Your task to perform on an android device: Add "sony triple a" to the cart on target, then select checkout. Image 0: 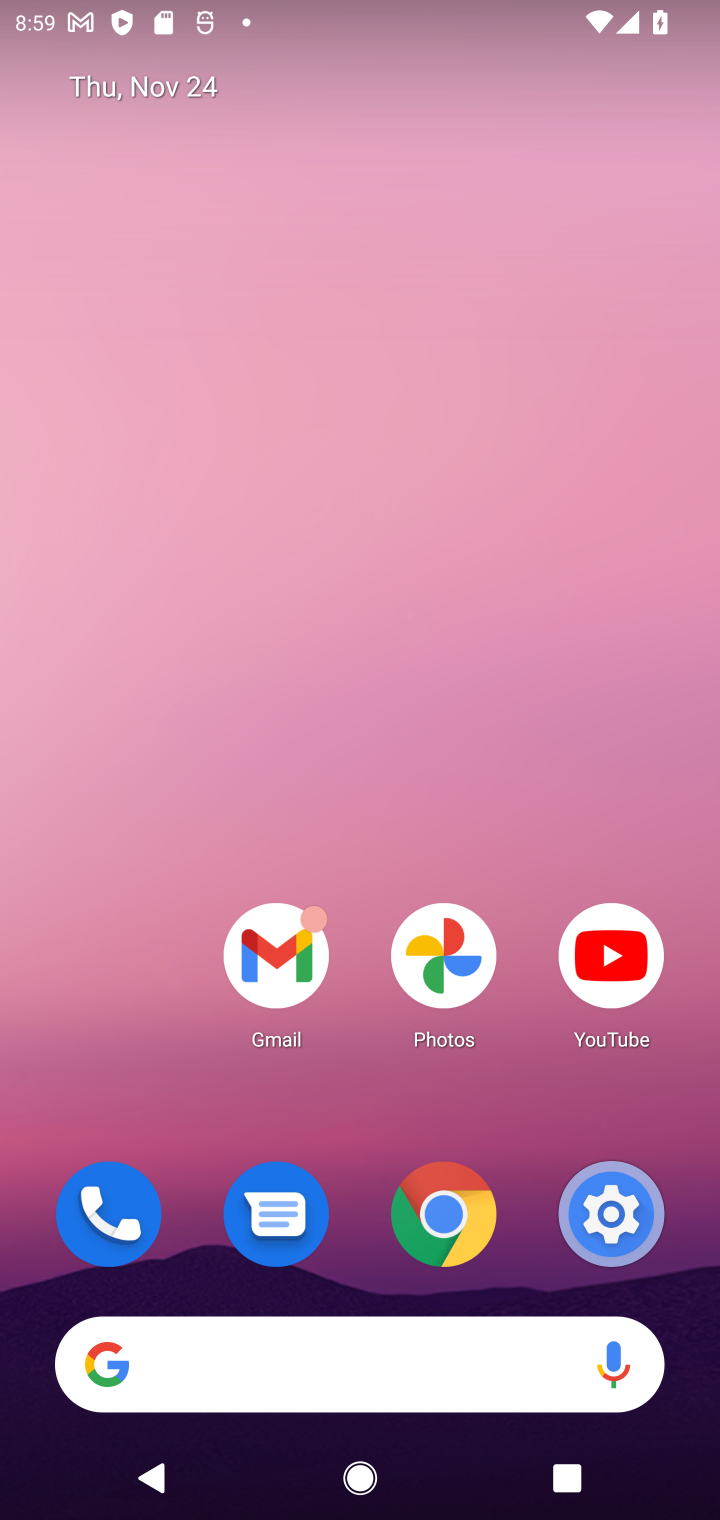
Step 0: click (379, 1335)
Your task to perform on an android device: Add "sony triple a" to the cart on target, then select checkout. Image 1: 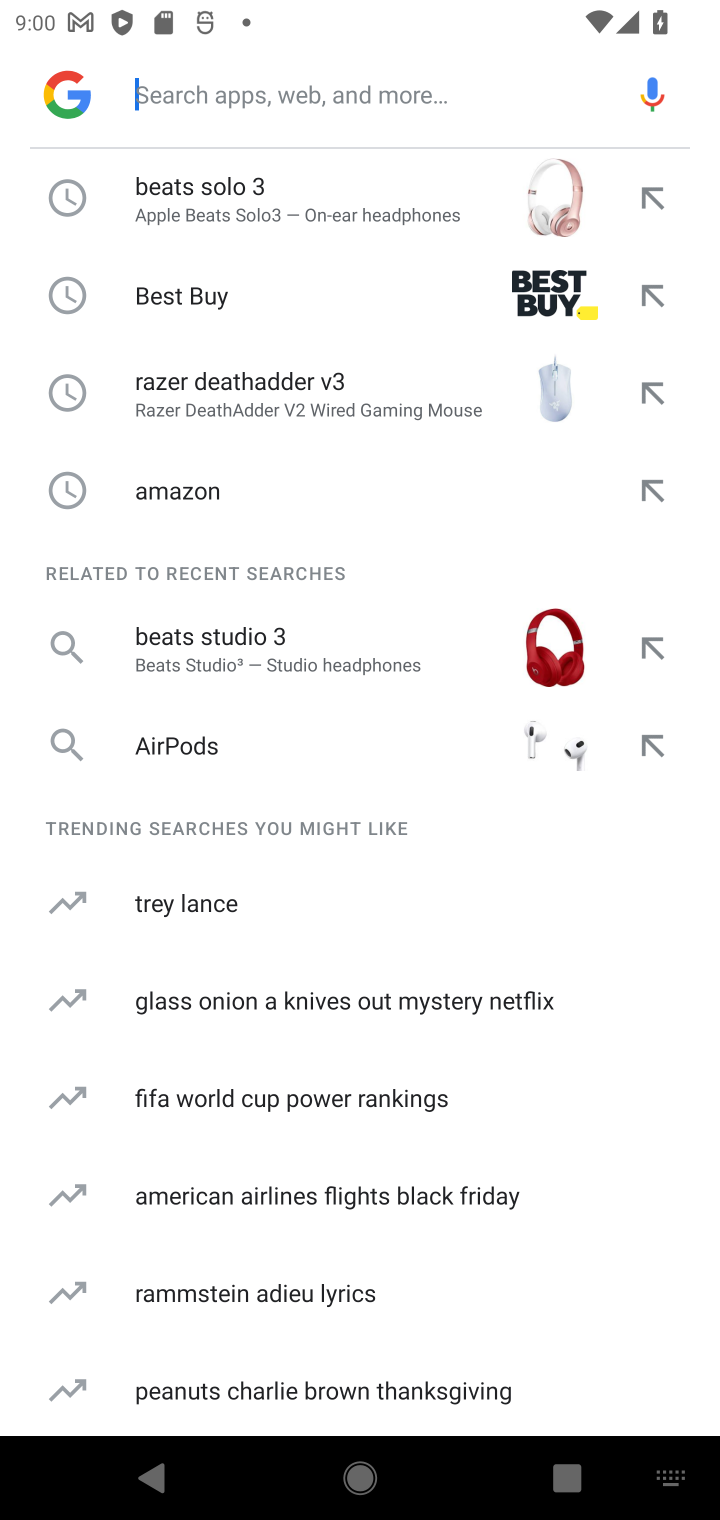
Step 1: type "taget"
Your task to perform on an android device: Add "sony triple a" to the cart on target, then select checkout. Image 2: 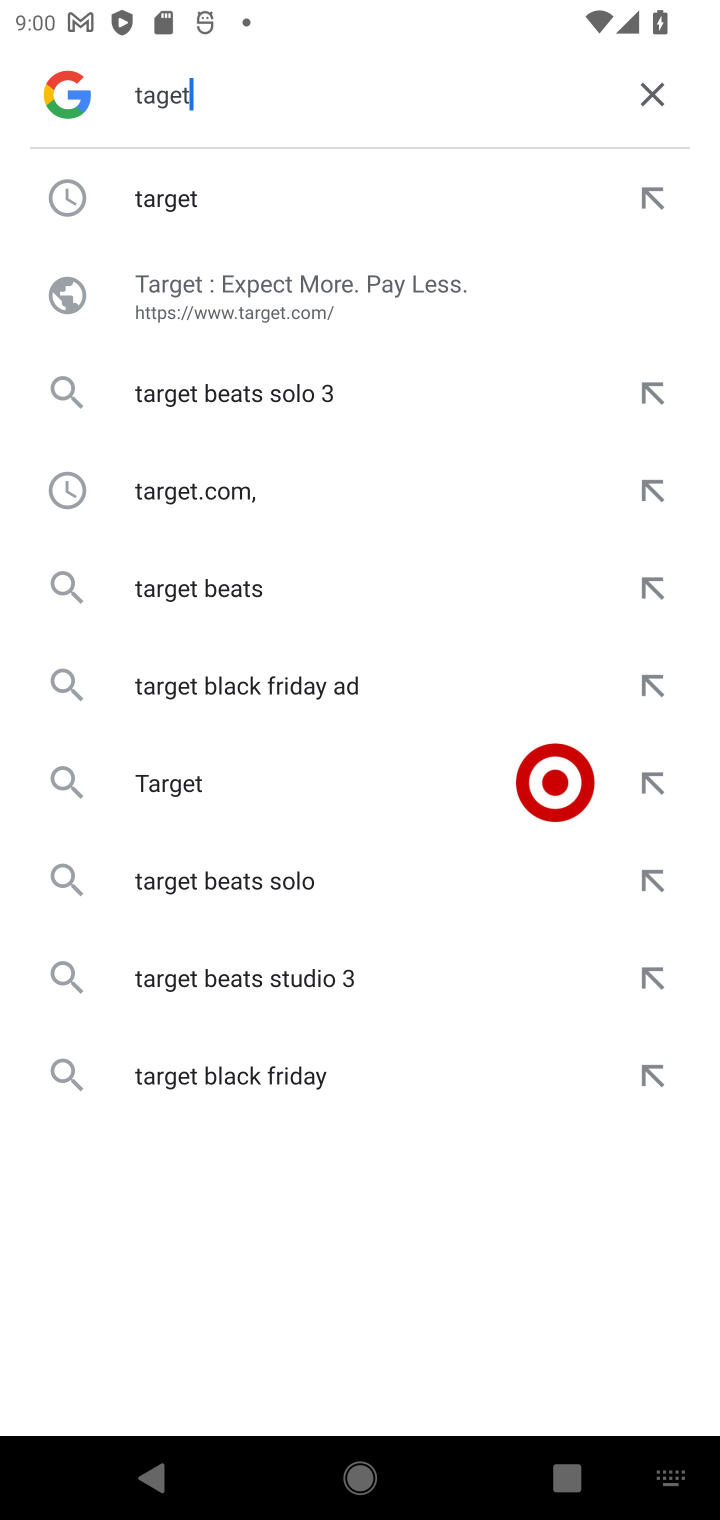
Step 2: click (324, 203)
Your task to perform on an android device: Add "sony triple a" to the cart on target, then select checkout. Image 3: 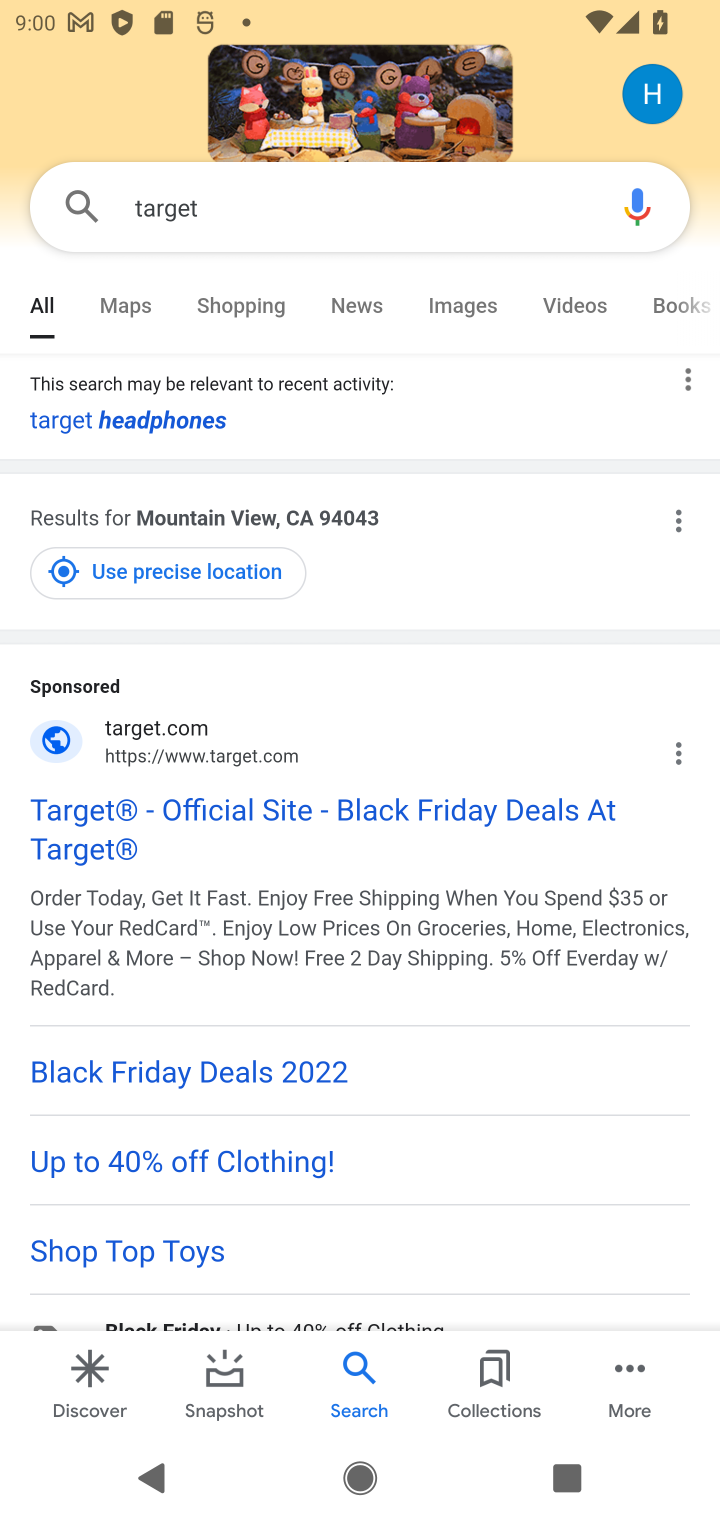
Step 3: click (198, 838)
Your task to perform on an android device: Add "sony triple a" to the cart on target, then select checkout. Image 4: 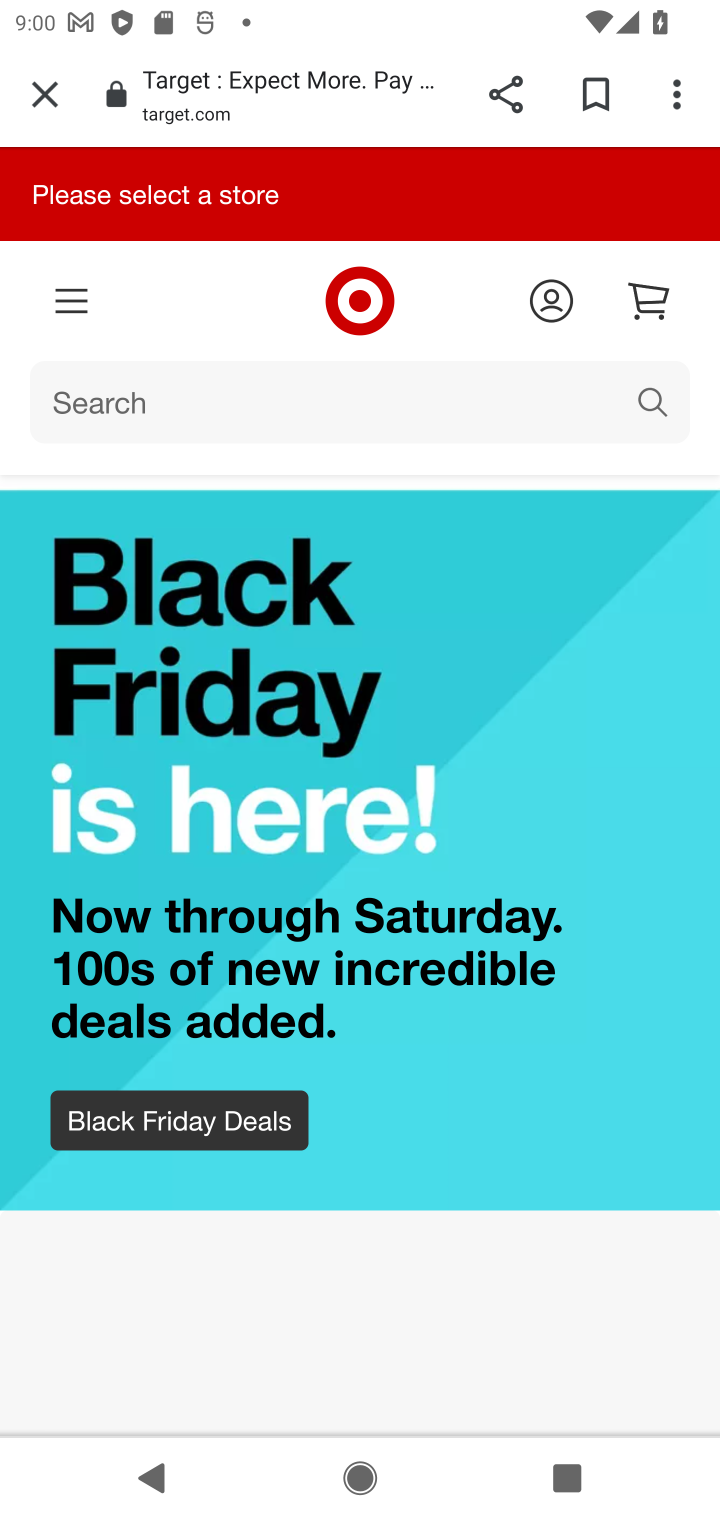
Step 4: task complete